Your task to perform on an android device: toggle sleep mode Image 0: 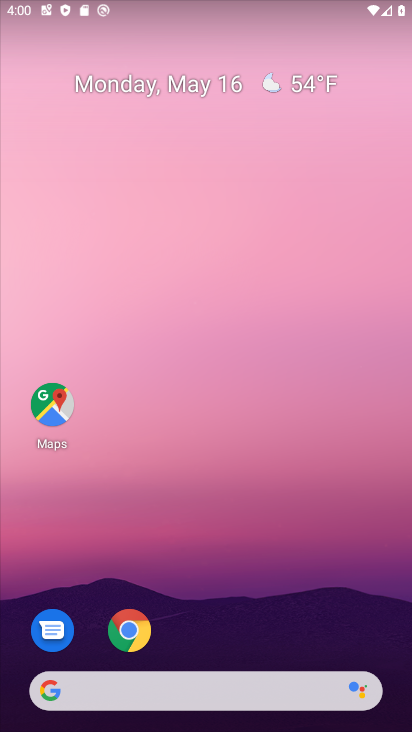
Step 0: drag from (247, 651) to (218, 128)
Your task to perform on an android device: toggle sleep mode Image 1: 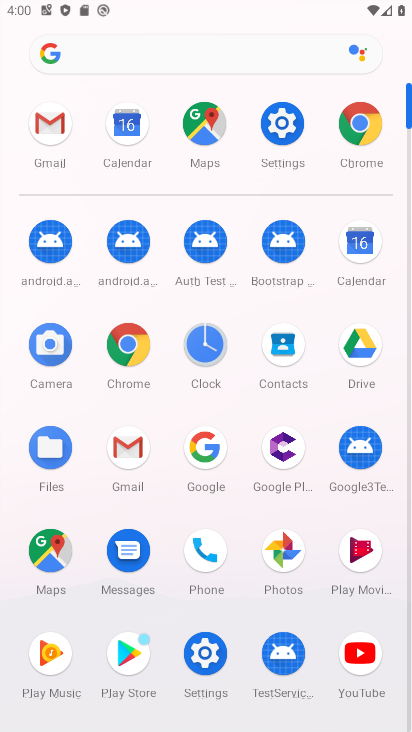
Step 1: click (290, 129)
Your task to perform on an android device: toggle sleep mode Image 2: 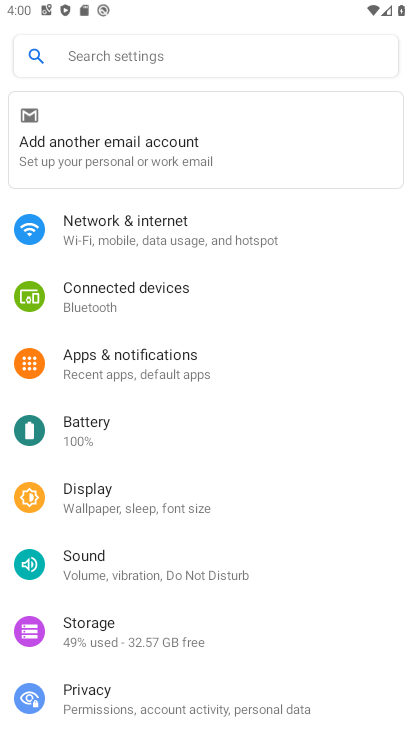
Step 2: click (186, 503)
Your task to perform on an android device: toggle sleep mode Image 3: 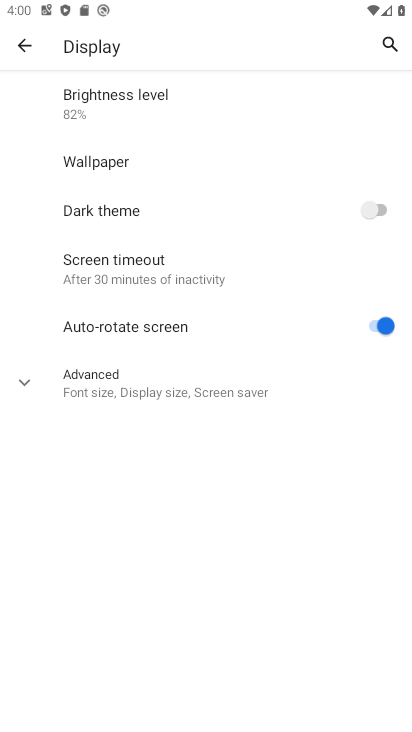
Step 3: click (223, 395)
Your task to perform on an android device: toggle sleep mode Image 4: 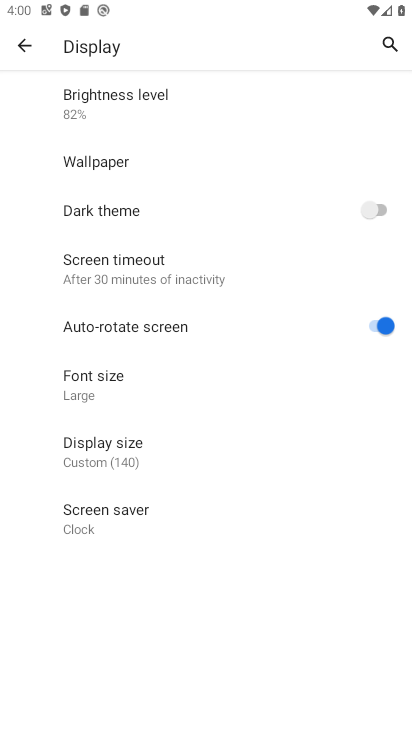
Step 4: task complete